Your task to perform on an android device: Go to Wikipedia Image 0: 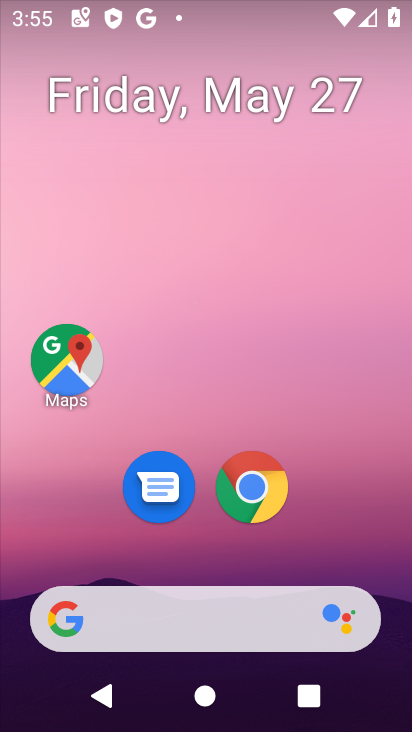
Step 0: click (255, 487)
Your task to perform on an android device: Go to Wikipedia Image 1: 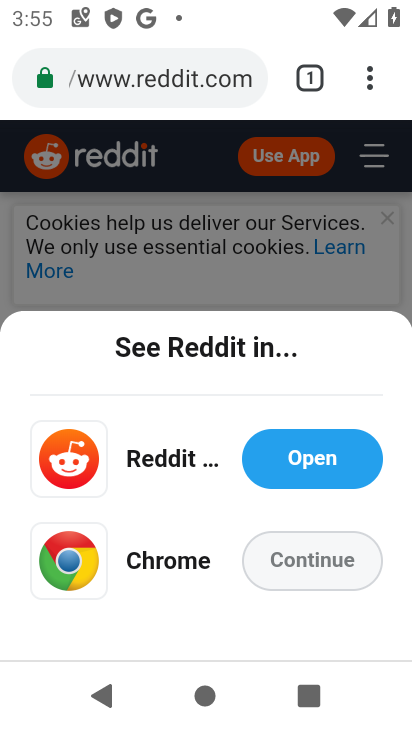
Step 1: click (222, 84)
Your task to perform on an android device: Go to Wikipedia Image 2: 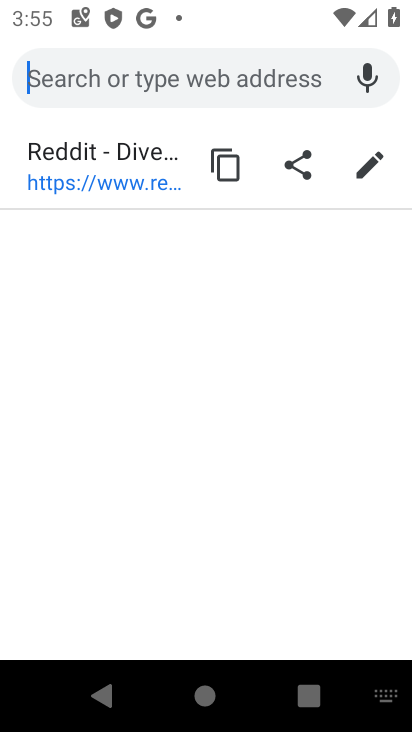
Step 2: type "wikipedia"
Your task to perform on an android device: Go to Wikipedia Image 3: 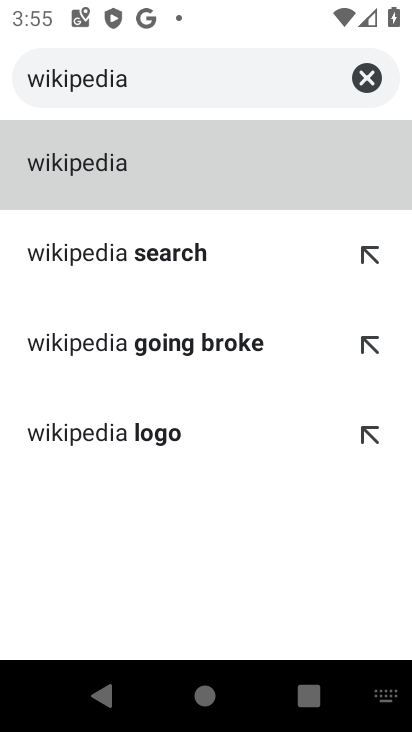
Step 3: click (112, 181)
Your task to perform on an android device: Go to Wikipedia Image 4: 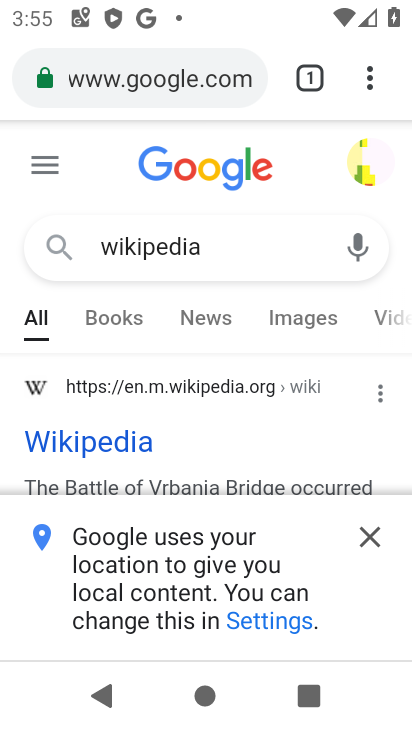
Step 4: drag from (163, 440) to (192, 278)
Your task to perform on an android device: Go to Wikipedia Image 5: 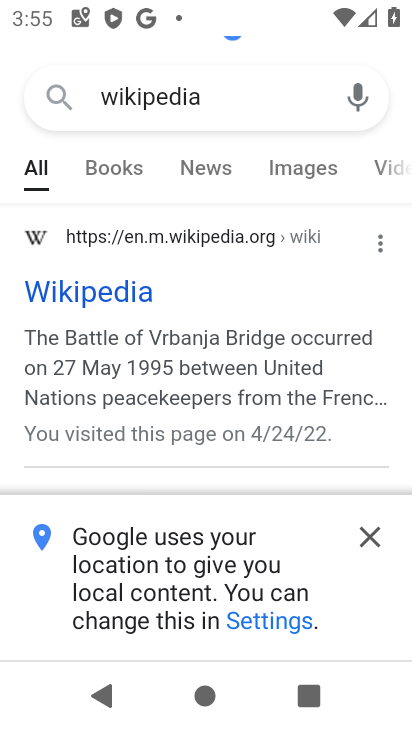
Step 5: click (125, 305)
Your task to perform on an android device: Go to Wikipedia Image 6: 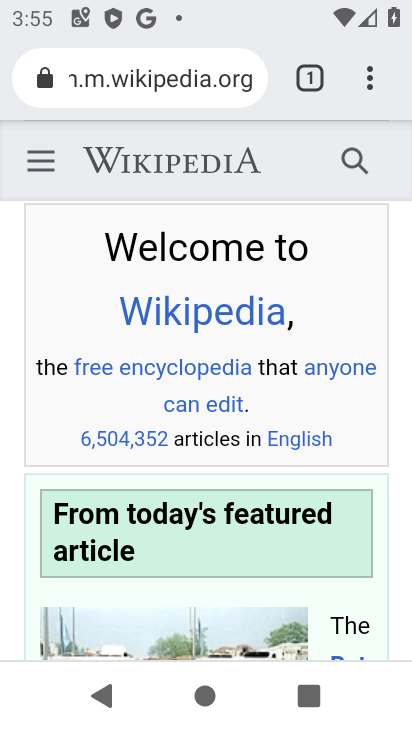
Step 6: task complete